Your task to perform on an android device: Open calendar and show me the fourth week of next month Image 0: 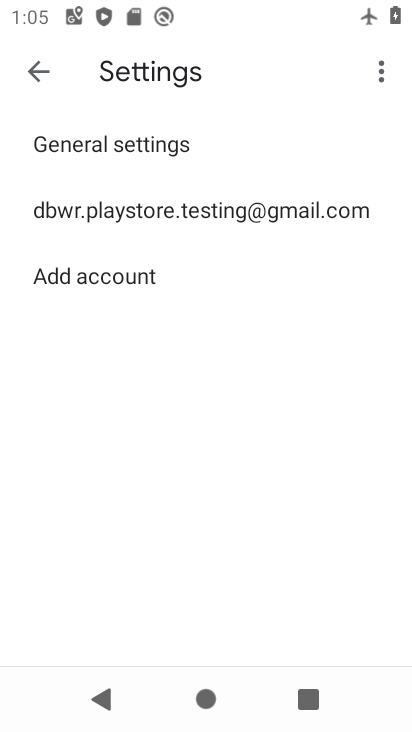
Step 0: press home button
Your task to perform on an android device: Open calendar and show me the fourth week of next month Image 1: 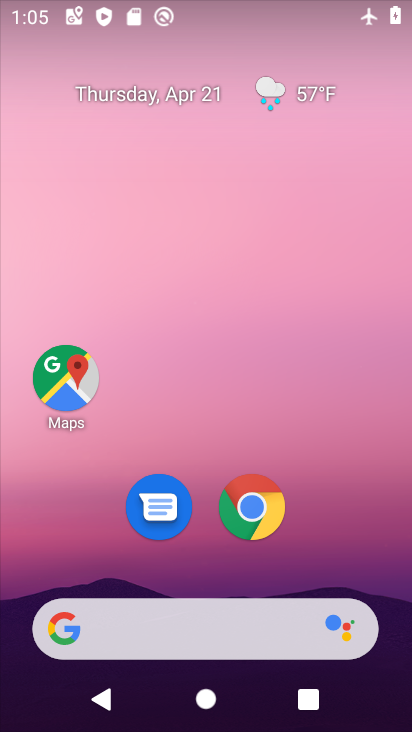
Step 1: drag from (197, 482) to (319, 0)
Your task to perform on an android device: Open calendar and show me the fourth week of next month Image 2: 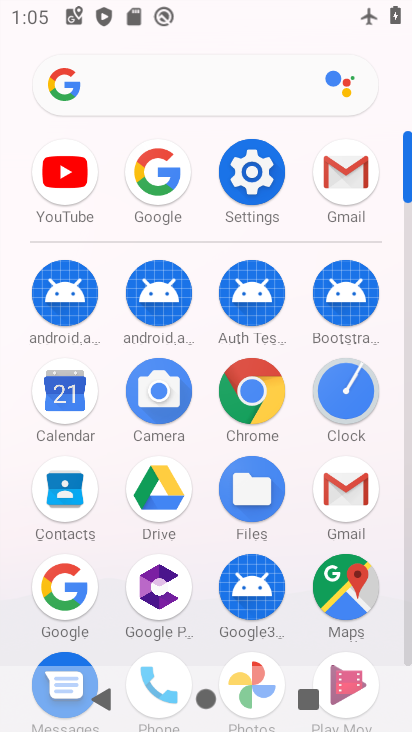
Step 2: click (63, 391)
Your task to perform on an android device: Open calendar and show me the fourth week of next month Image 3: 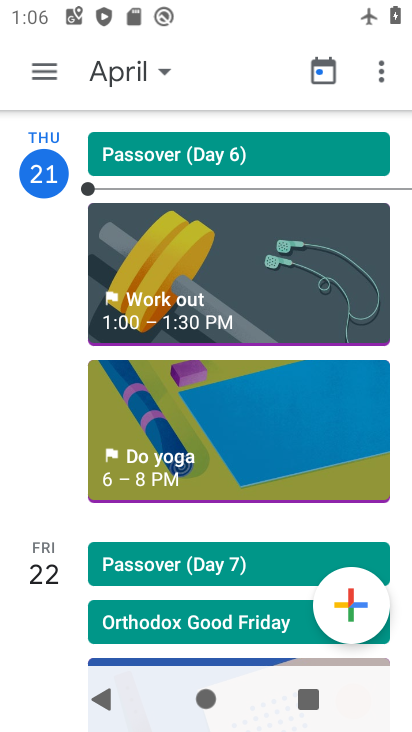
Step 3: click (165, 70)
Your task to perform on an android device: Open calendar and show me the fourth week of next month Image 4: 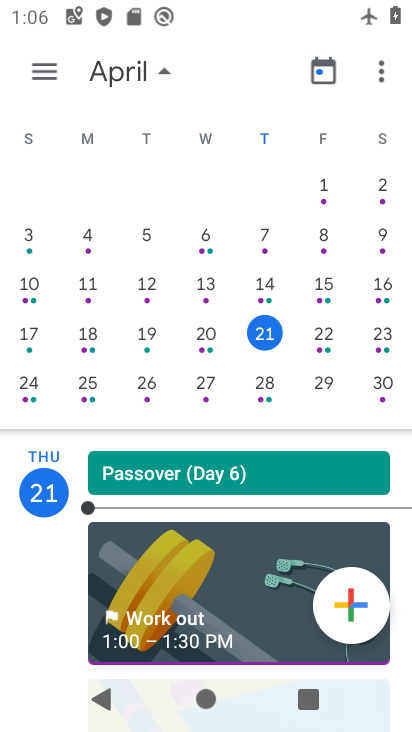
Step 4: drag from (360, 313) to (11, 311)
Your task to perform on an android device: Open calendar and show me the fourth week of next month Image 5: 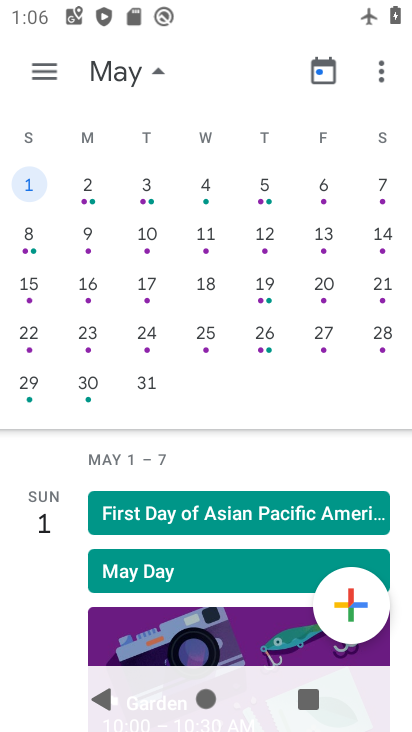
Step 5: click (97, 338)
Your task to perform on an android device: Open calendar and show me the fourth week of next month Image 6: 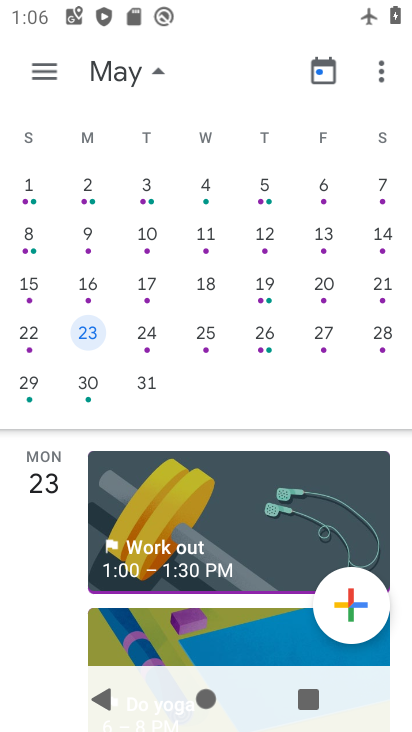
Step 6: click (51, 71)
Your task to perform on an android device: Open calendar and show me the fourth week of next month Image 7: 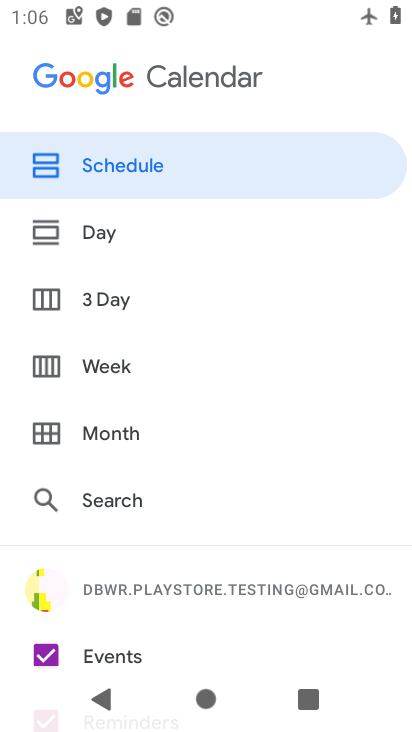
Step 7: click (104, 359)
Your task to perform on an android device: Open calendar and show me the fourth week of next month Image 8: 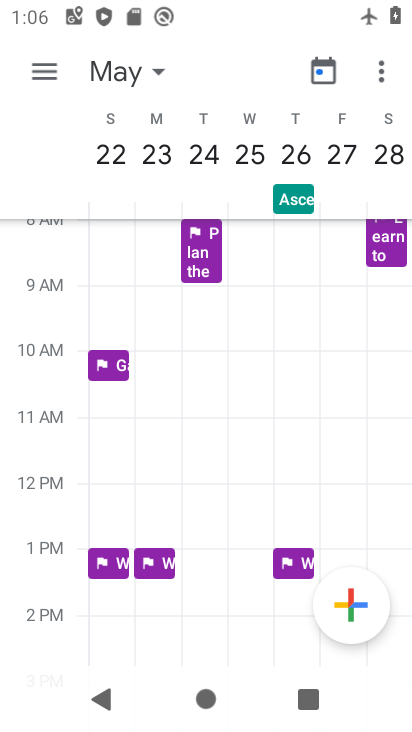
Step 8: task complete